Your task to perform on an android device: allow cookies in the chrome app Image 0: 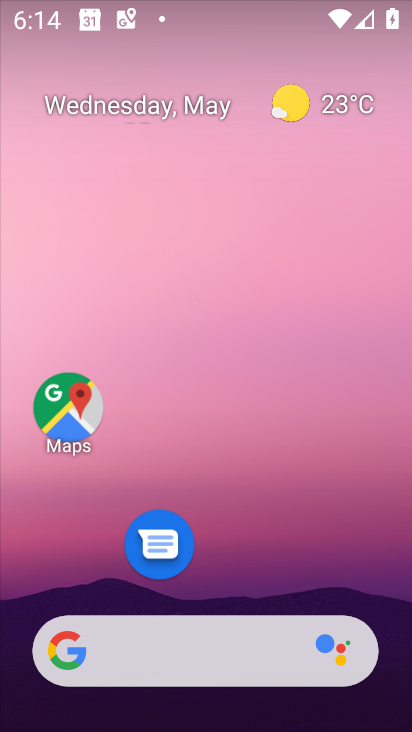
Step 0: drag from (301, 504) to (209, 12)
Your task to perform on an android device: allow cookies in the chrome app Image 1: 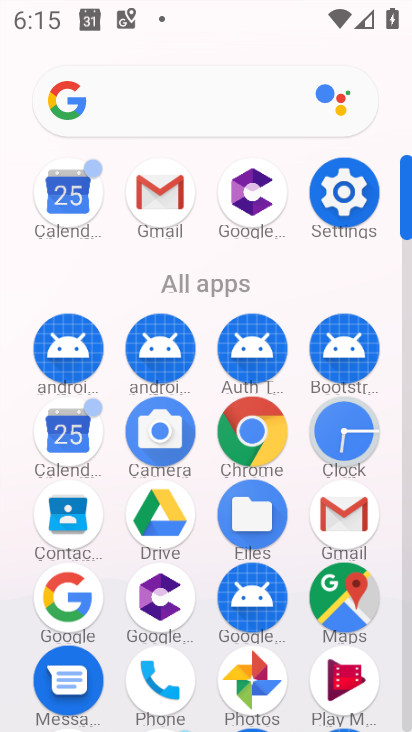
Step 1: click (253, 426)
Your task to perform on an android device: allow cookies in the chrome app Image 2: 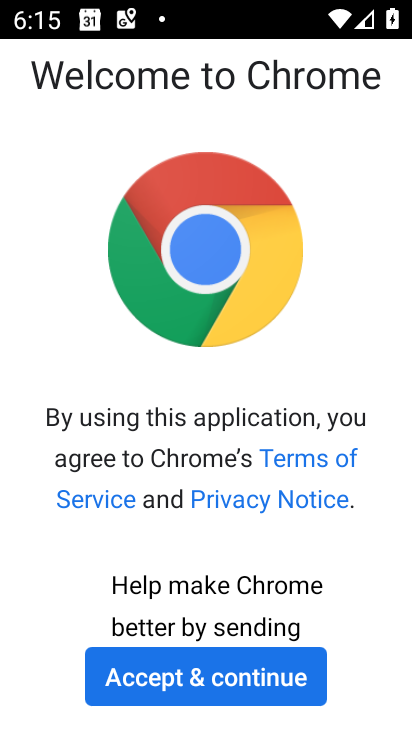
Step 2: click (199, 680)
Your task to perform on an android device: allow cookies in the chrome app Image 3: 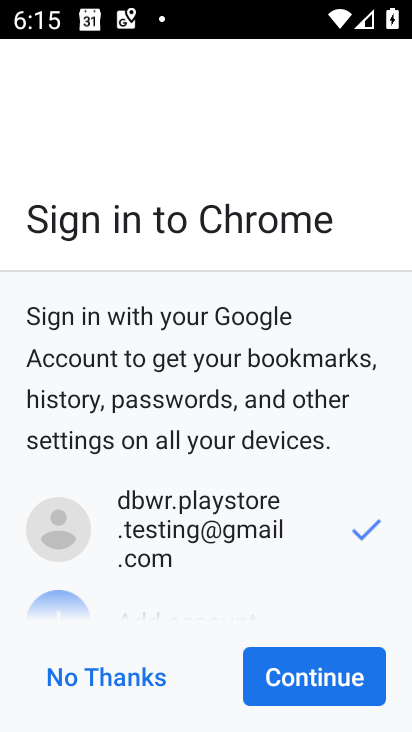
Step 3: click (296, 681)
Your task to perform on an android device: allow cookies in the chrome app Image 4: 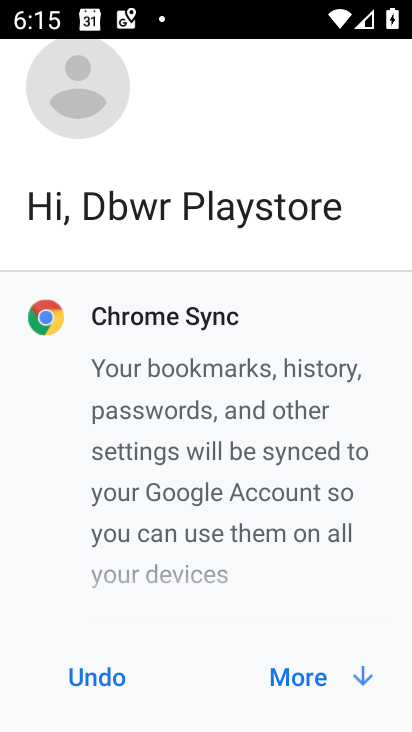
Step 4: click (365, 678)
Your task to perform on an android device: allow cookies in the chrome app Image 5: 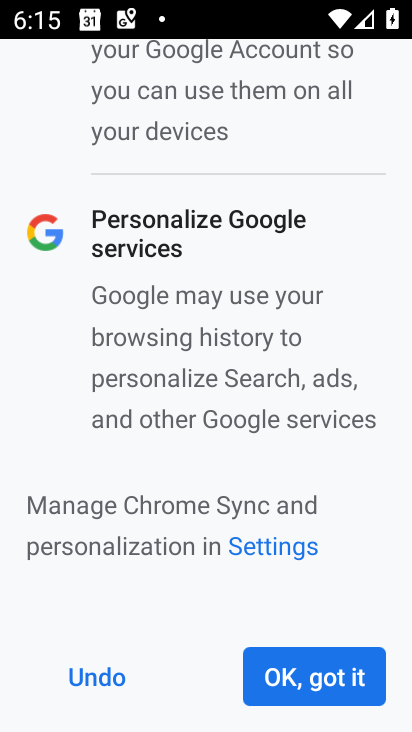
Step 5: click (323, 674)
Your task to perform on an android device: allow cookies in the chrome app Image 6: 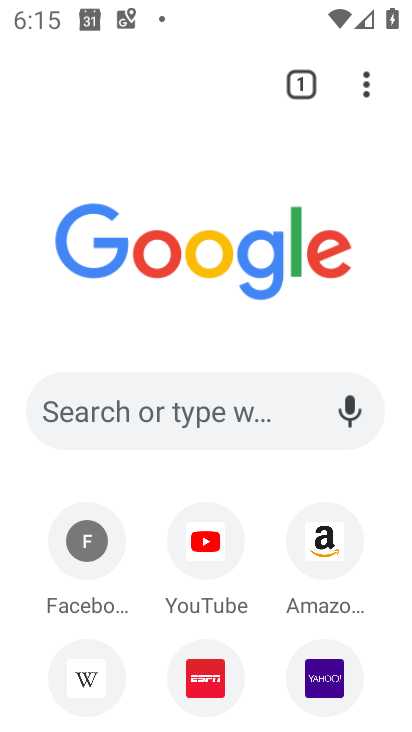
Step 6: click (366, 82)
Your task to perform on an android device: allow cookies in the chrome app Image 7: 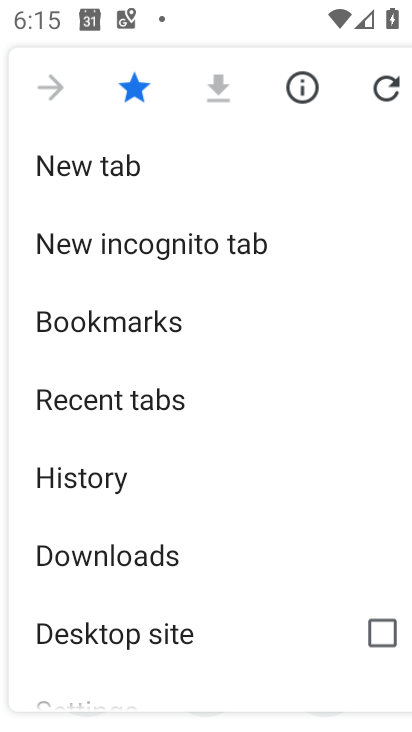
Step 7: drag from (233, 564) to (126, 168)
Your task to perform on an android device: allow cookies in the chrome app Image 8: 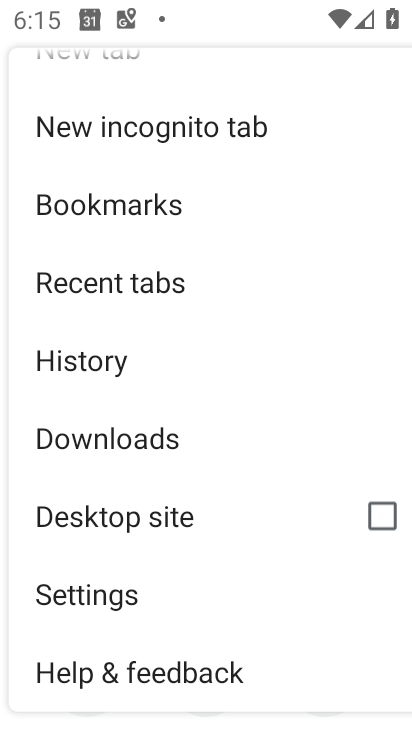
Step 8: click (101, 600)
Your task to perform on an android device: allow cookies in the chrome app Image 9: 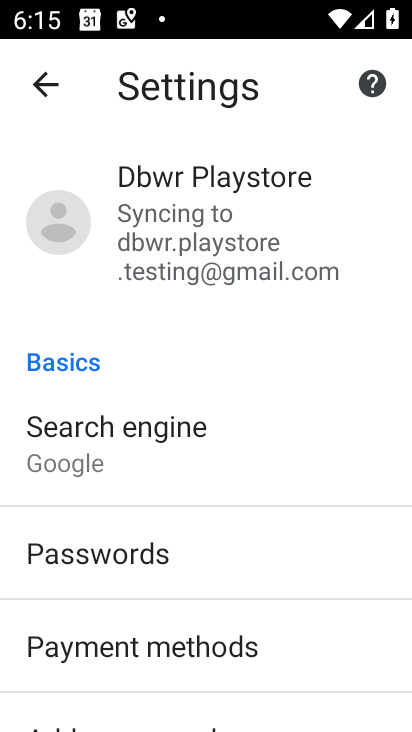
Step 9: drag from (205, 519) to (162, 194)
Your task to perform on an android device: allow cookies in the chrome app Image 10: 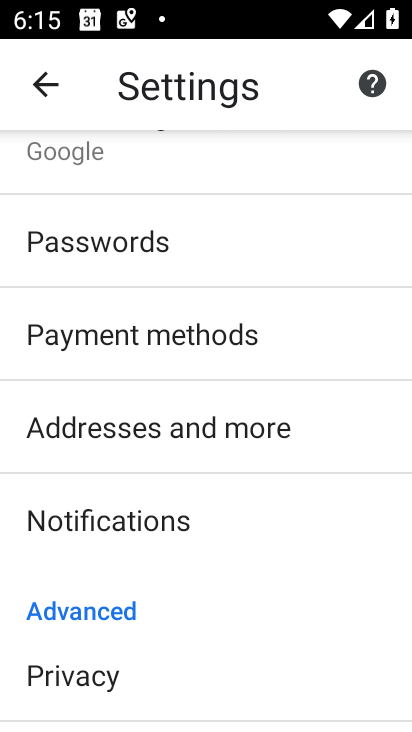
Step 10: drag from (246, 536) to (193, 245)
Your task to perform on an android device: allow cookies in the chrome app Image 11: 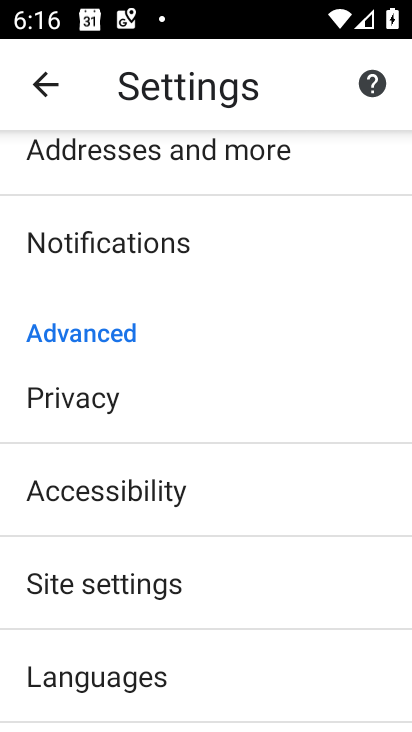
Step 11: click (133, 583)
Your task to perform on an android device: allow cookies in the chrome app Image 12: 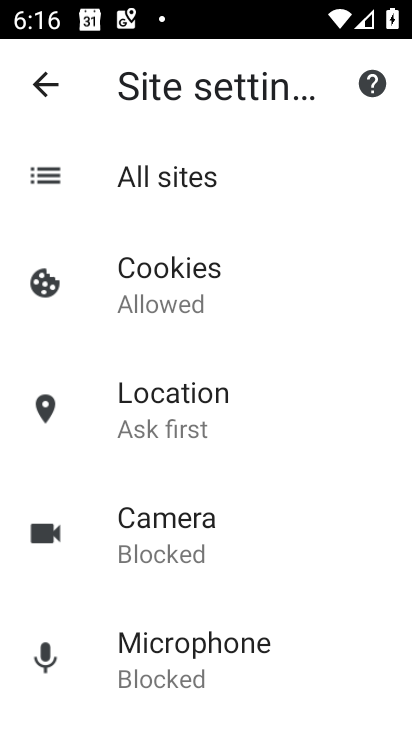
Step 12: click (162, 280)
Your task to perform on an android device: allow cookies in the chrome app Image 13: 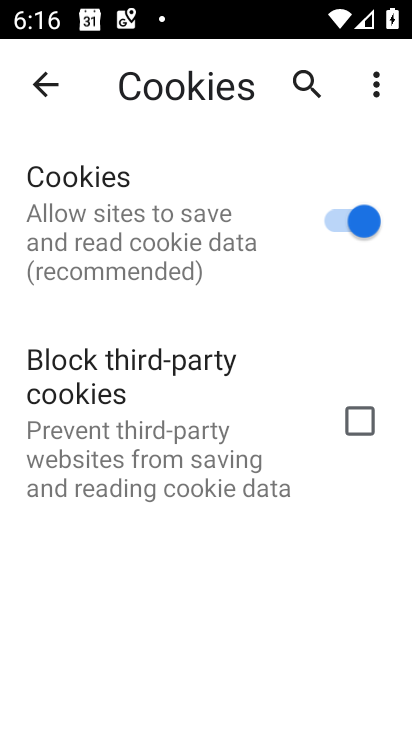
Step 13: task complete